Your task to perform on an android device: Go to wifi settings Image 0: 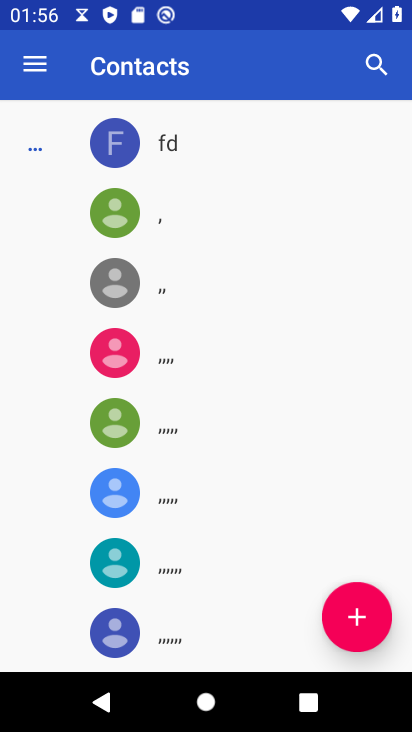
Step 0: press home button
Your task to perform on an android device: Go to wifi settings Image 1: 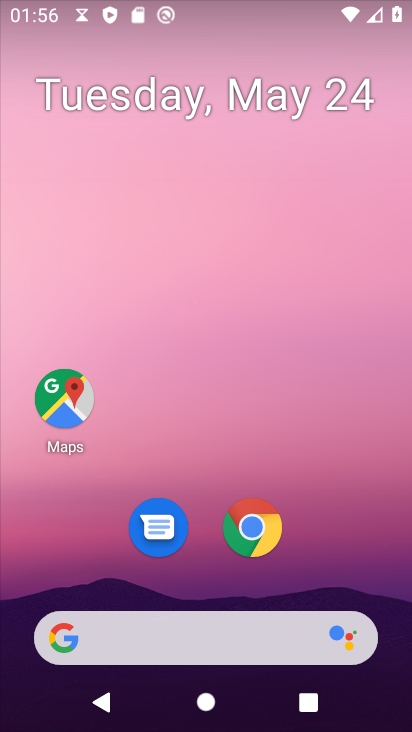
Step 1: drag from (198, 643) to (309, 214)
Your task to perform on an android device: Go to wifi settings Image 2: 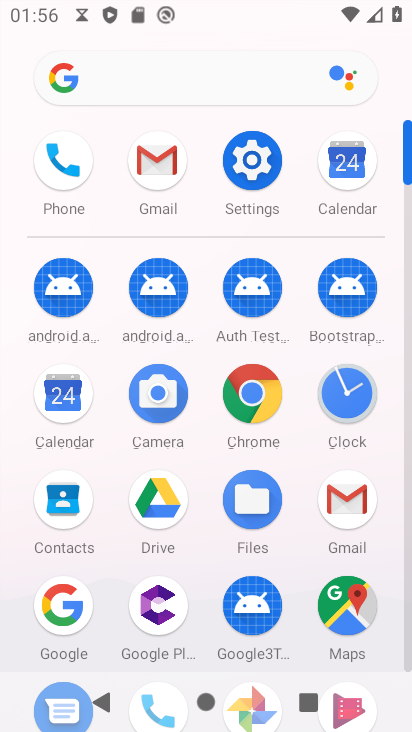
Step 2: click (246, 178)
Your task to perform on an android device: Go to wifi settings Image 3: 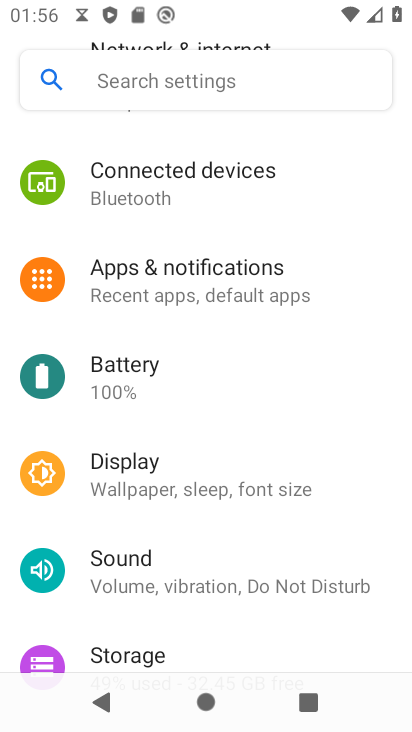
Step 3: drag from (281, 220) to (299, 542)
Your task to perform on an android device: Go to wifi settings Image 4: 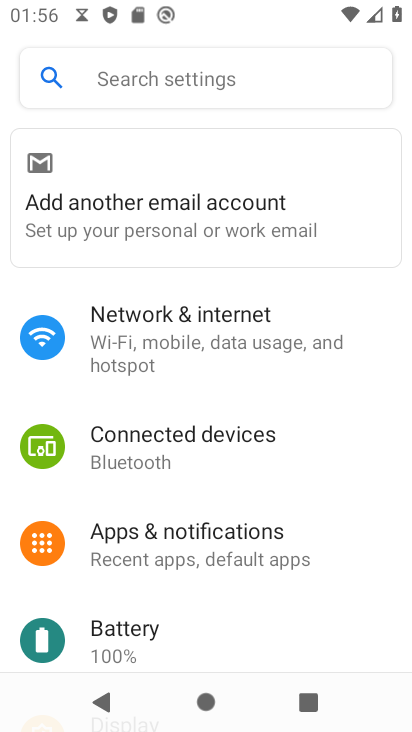
Step 4: click (212, 332)
Your task to perform on an android device: Go to wifi settings Image 5: 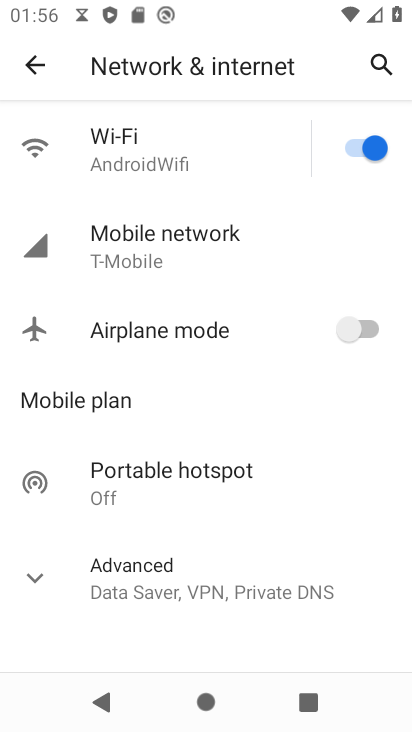
Step 5: click (129, 154)
Your task to perform on an android device: Go to wifi settings Image 6: 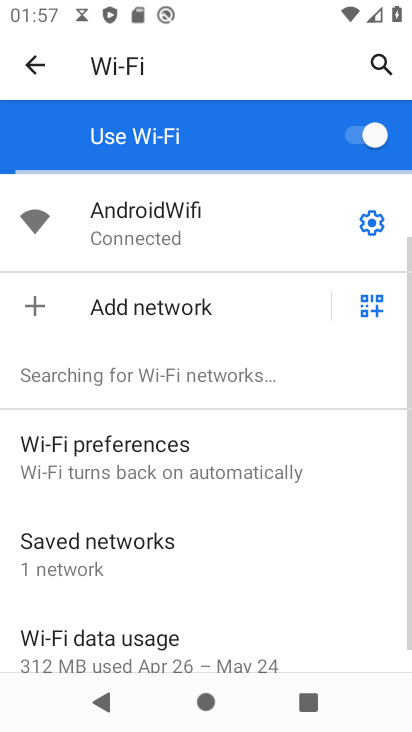
Step 6: task complete